Your task to perform on an android device: open app "PlayWell" (install if not already installed) Image 0: 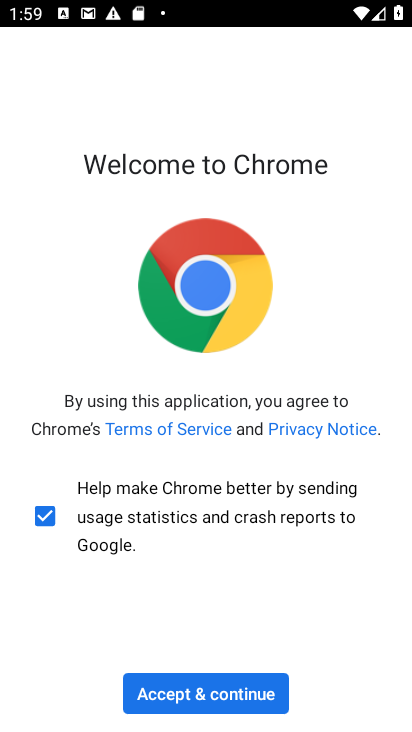
Step 0: press home button
Your task to perform on an android device: open app "PlayWell" (install if not already installed) Image 1: 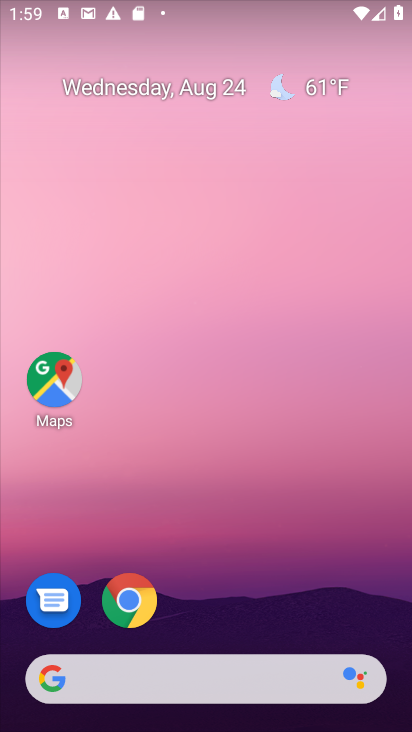
Step 1: drag from (267, 641) to (327, 21)
Your task to perform on an android device: open app "PlayWell" (install if not already installed) Image 2: 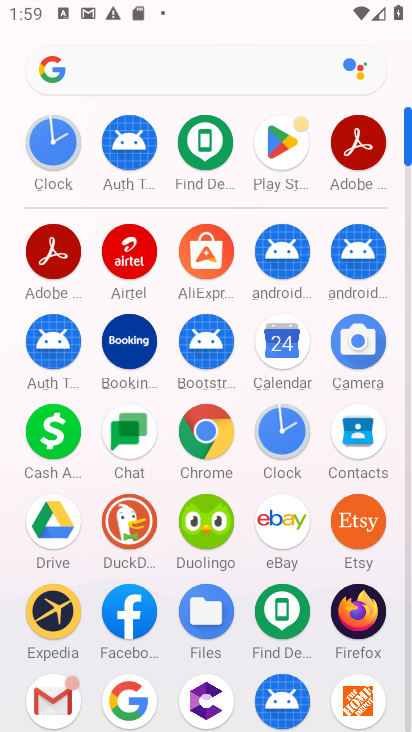
Step 2: click (349, 144)
Your task to perform on an android device: open app "PlayWell" (install if not already installed) Image 3: 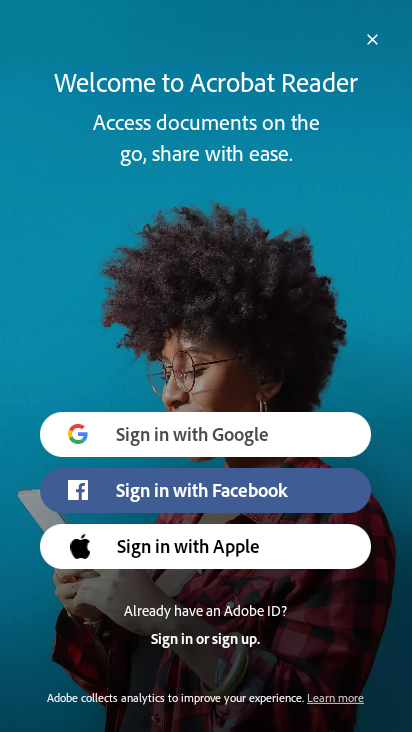
Step 3: press home button
Your task to perform on an android device: open app "PlayWell" (install if not already installed) Image 4: 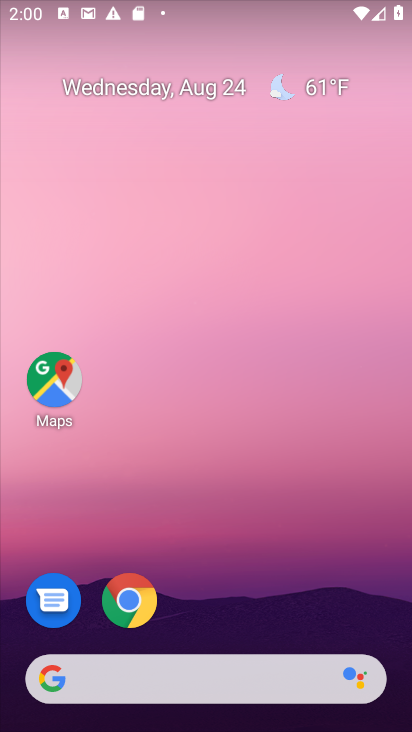
Step 4: drag from (286, 647) to (282, 190)
Your task to perform on an android device: open app "PlayWell" (install if not already installed) Image 5: 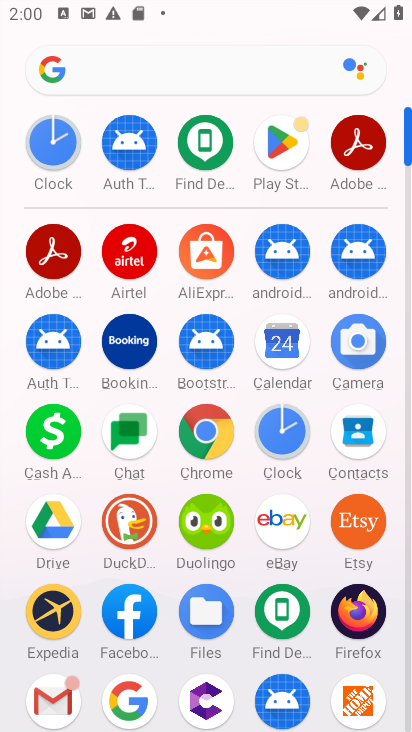
Step 5: click (276, 156)
Your task to perform on an android device: open app "PlayWell" (install if not already installed) Image 6: 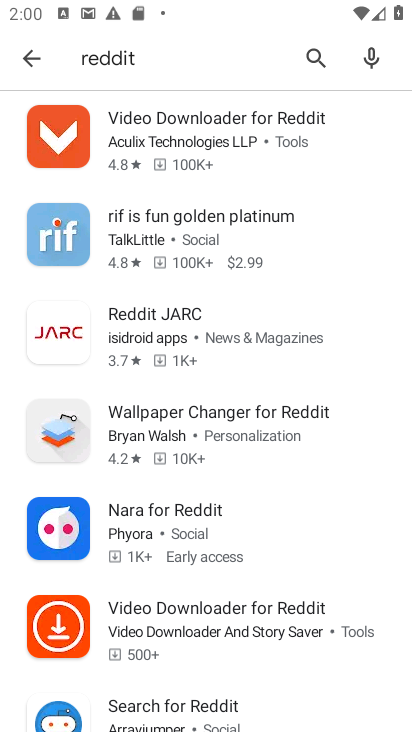
Step 6: click (321, 71)
Your task to perform on an android device: open app "PlayWell" (install if not already installed) Image 7: 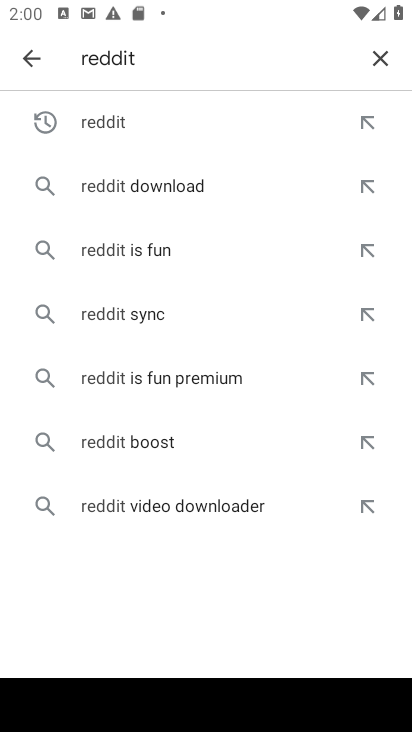
Step 7: click (368, 70)
Your task to perform on an android device: open app "PlayWell" (install if not already installed) Image 8: 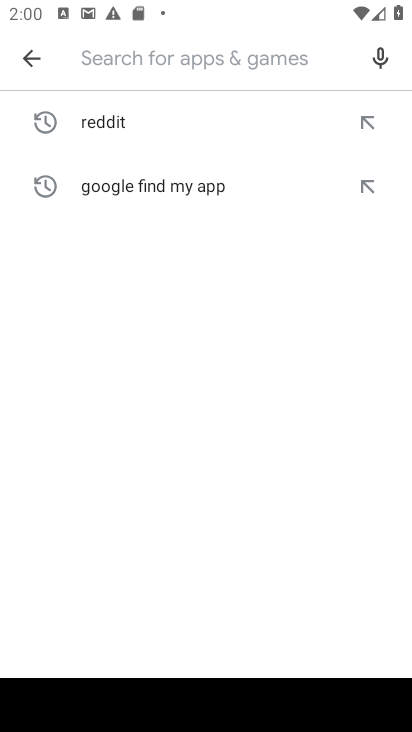
Step 8: type "playweell"
Your task to perform on an android device: open app "PlayWell" (install if not already installed) Image 9: 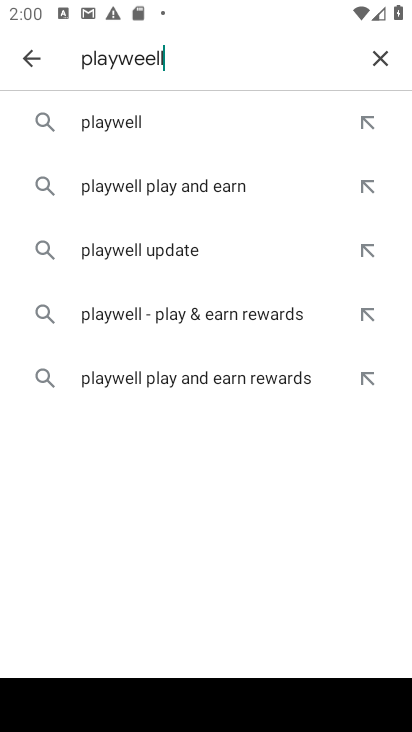
Step 9: click (93, 111)
Your task to perform on an android device: open app "PlayWell" (install if not already installed) Image 10: 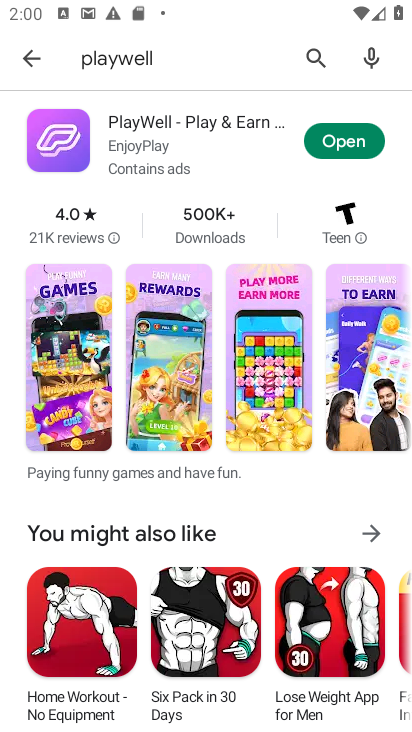
Step 10: click (322, 140)
Your task to perform on an android device: open app "PlayWell" (install if not already installed) Image 11: 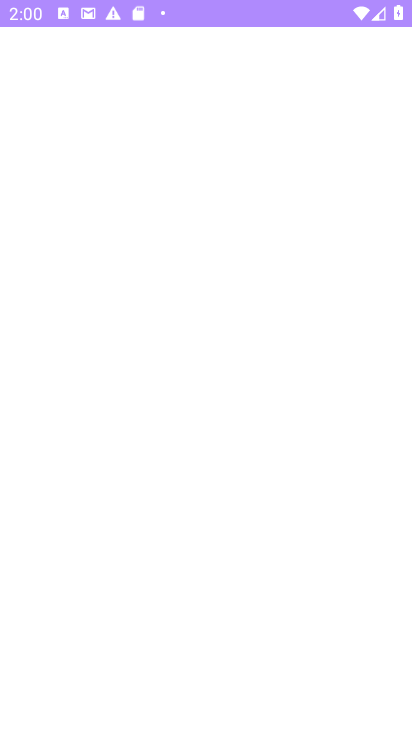
Step 11: task complete